Your task to perform on an android device: Open calendar and show me the fourth week of next month Image 0: 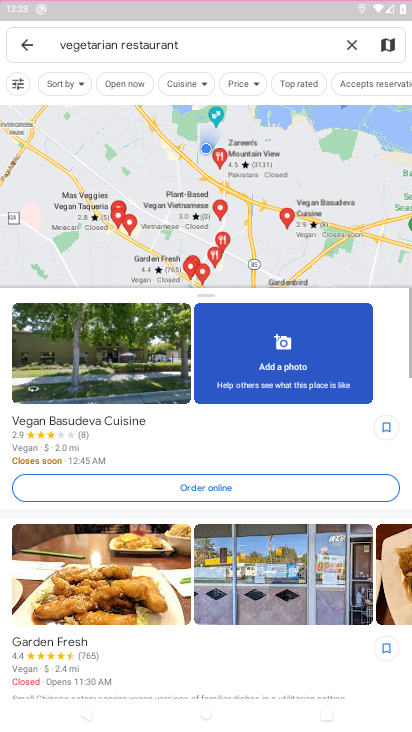
Step 0: press home button
Your task to perform on an android device: Open calendar and show me the fourth week of next month Image 1: 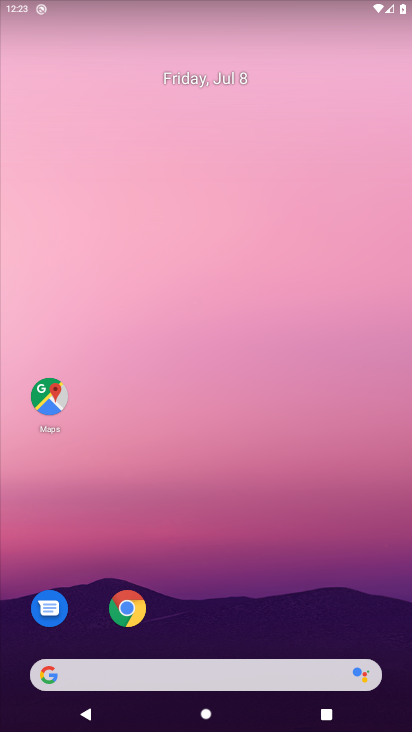
Step 1: drag from (338, 673) to (409, 630)
Your task to perform on an android device: Open calendar and show me the fourth week of next month Image 2: 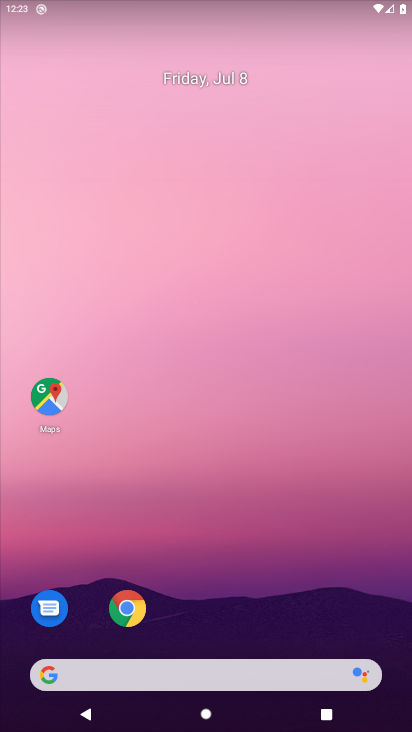
Step 2: drag from (230, 699) to (366, 16)
Your task to perform on an android device: Open calendar and show me the fourth week of next month Image 3: 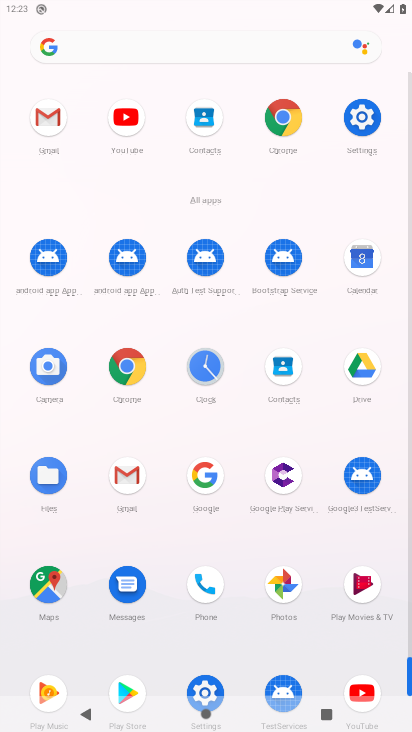
Step 3: click (371, 268)
Your task to perform on an android device: Open calendar and show me the fourth week of next month Image 4: 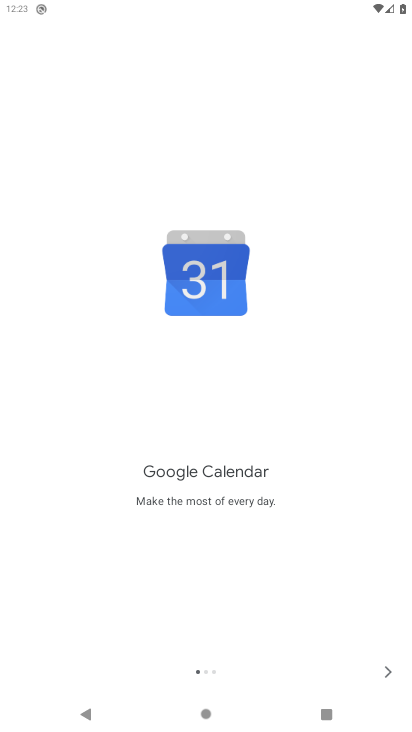
Step 4: click (379, 674)
Your task to perform on an android device: Open calendar and show me the fourth week of next month Image 5: 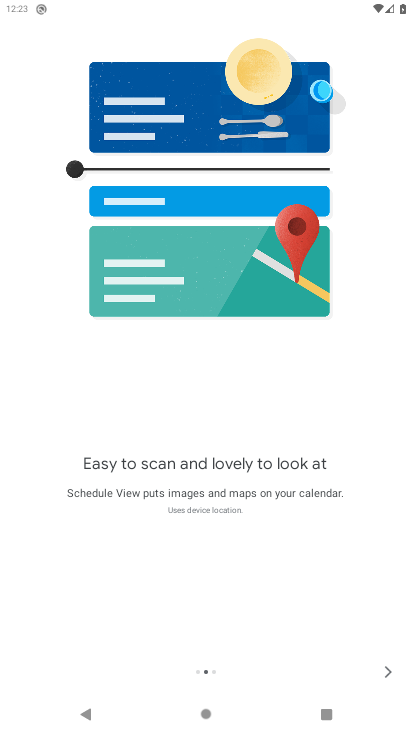
Step 5: click (393, 680)
Your task to perform on an android device: Open calendar and show me the fourth week of next month Image 6: 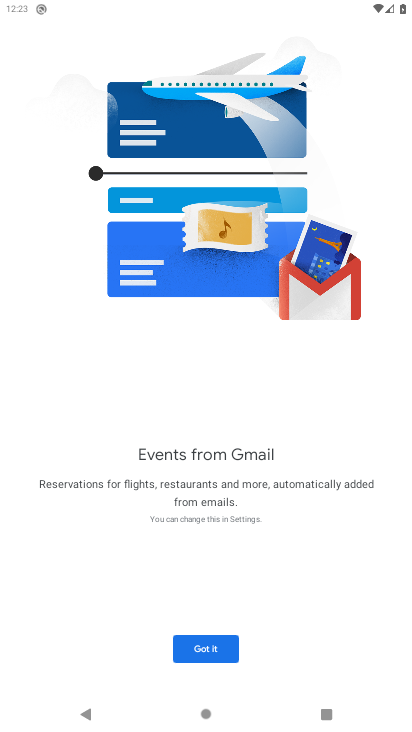
Step 6: click (225, 649)
Your task to perform on an android device: Open calendar and show me the fourth week of next month Image 7: 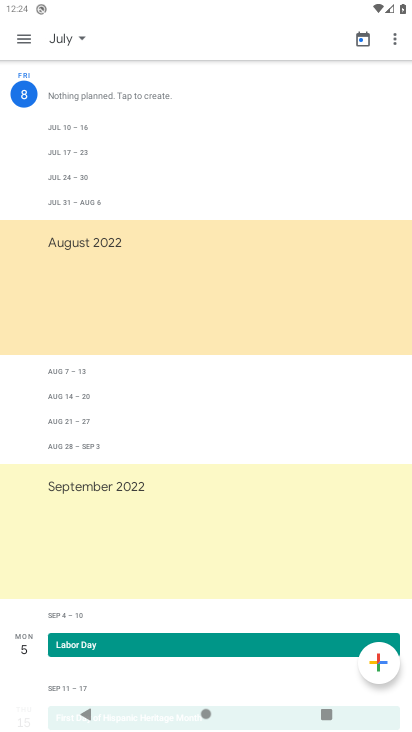
Step 7: click (88, 35)
Your task to perform on an android device: Open calendar and show me the fourth week of next month Image 8: 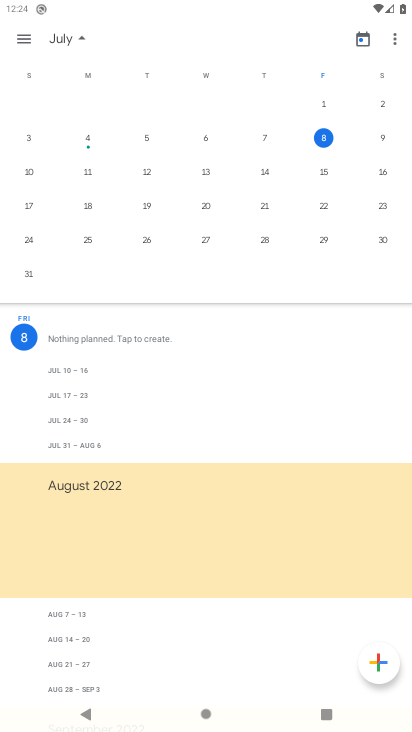
Step 8: drag from (325, 198) to (15, 114)
Your task to perform on an android device: Open calendar and show me the fourth week of next month Image 9: 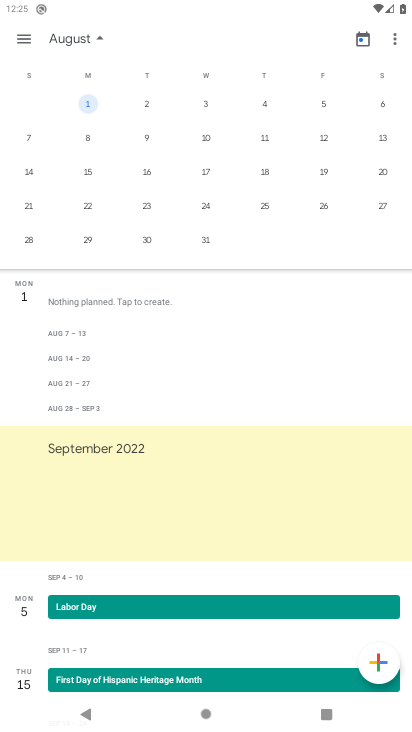
Step 9: click (81, 205)
Your task to perform on an android device: Open calendar and show me the fourth week of next month Image 10: 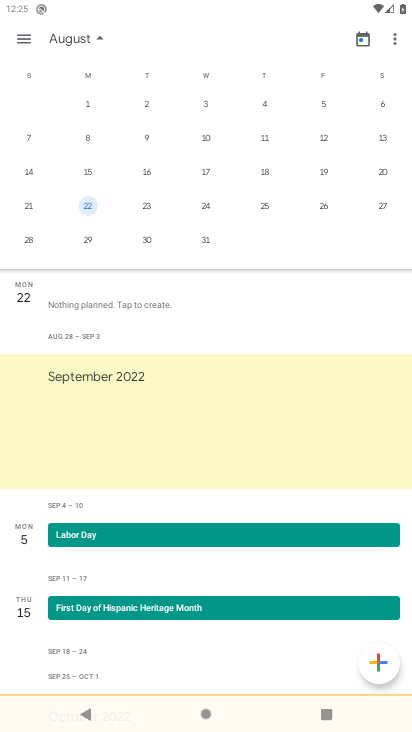
Step 10: task complete